Your task to perform on an android device: turn pop-ups off in chrome Image 0: 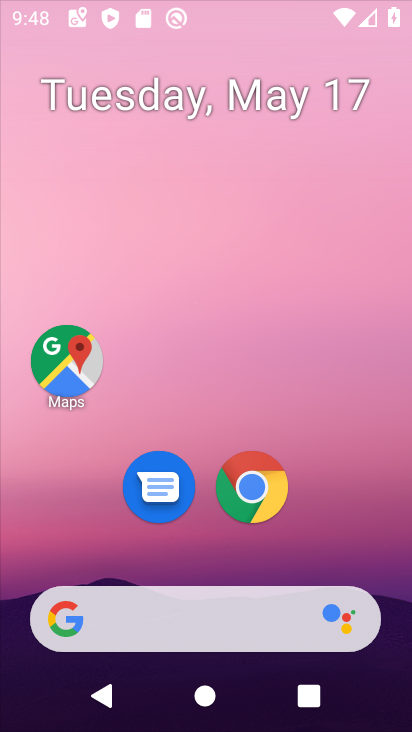
Step 0: press home button
Your task to perform on an android device: turn pop-ups off in chrome Image 1: 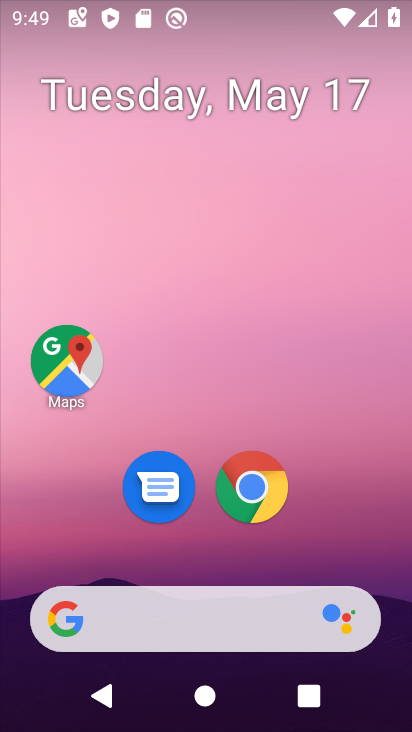
Step 1: drag from (245, 648) to (339, 275)
Your task to perform on an android device: turn pop-ups off in chrome Image 2: 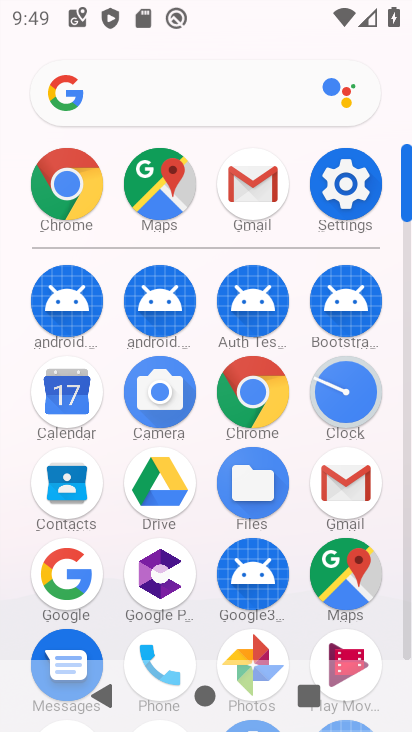
Step 2: click (69, 191)
Your task to perform on an android device: turn pop-ups off in chrome Image 3: 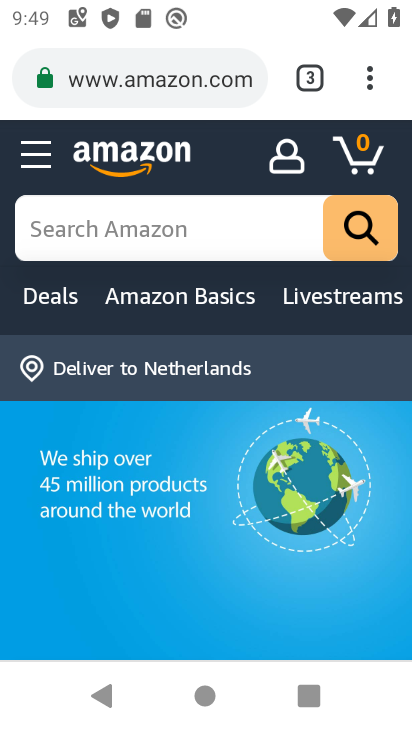
Step 3: click (359, 91)
Your task to perform on an android device: turn pop-ups off in chrome Image 4: 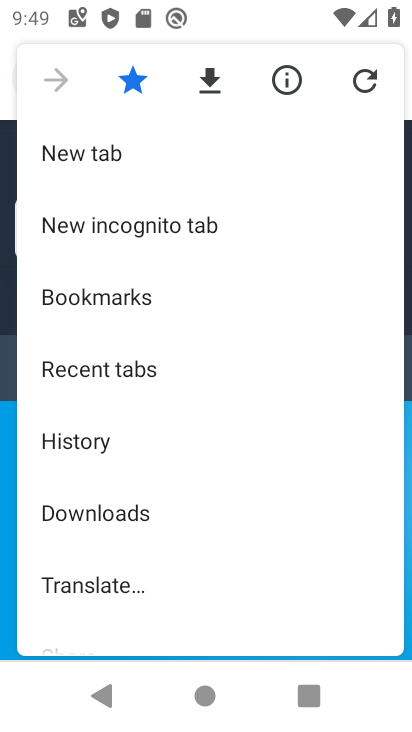
Step 4: drag from (173, 536) to (240, 274)
Your task to perform on an android device: turn pop-ups off in chrome Image 5: 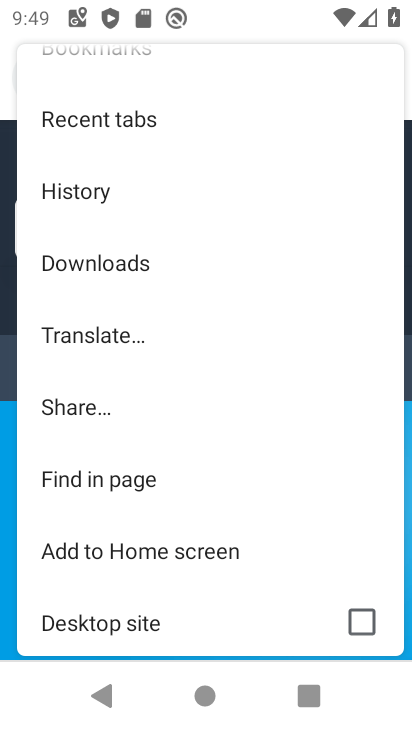
Step 5: drag from (127, 591) to (208, 354)
Your task to perform on an android device: turn pop-ups off in chrome Image 6: 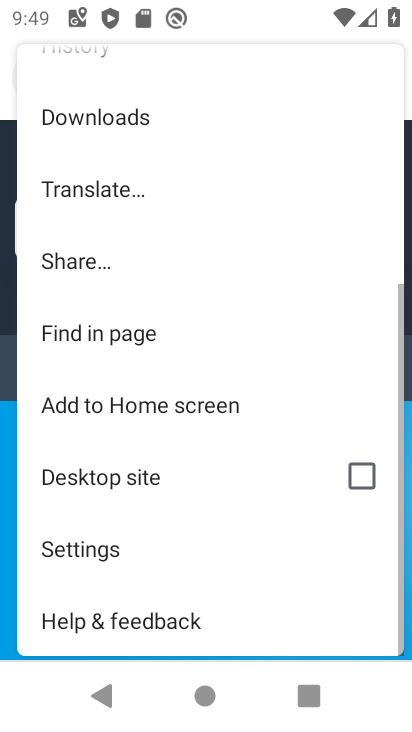
Step 6: click (145, 547)
Your task to perform on an android device: turn pop-ups off in chrome Image 7: 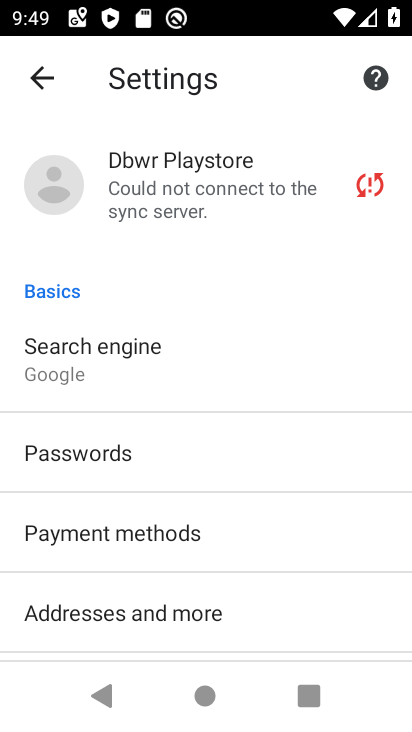
Step 7: drag from (147, 549) to (128, 329)
Your task to perform on an android device: turn pop-ups off in chrome Image 8: 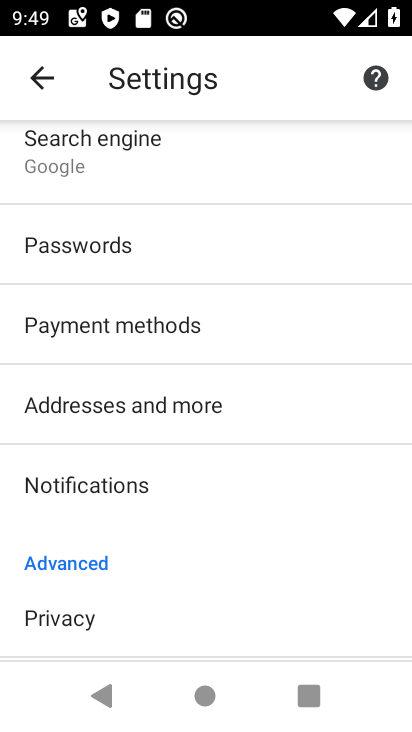
Step 8: drag from (158, 525) to (182, 334)
Your task to perform on an android device: turn pop-ups off in chrome Image 9: 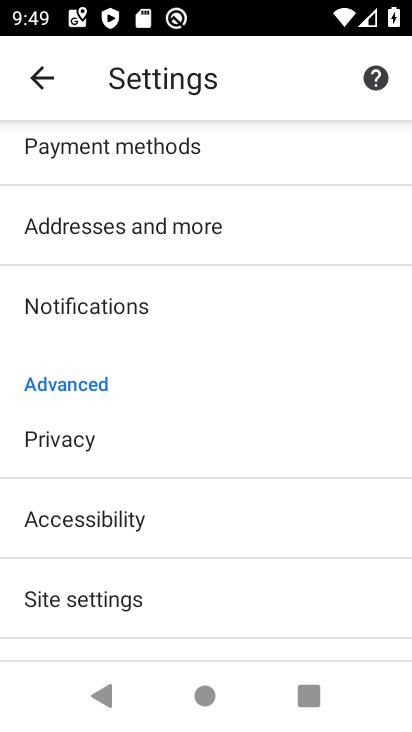
Step 9: drag from (125, 555) to (189, 352)
Your task to perform on an android device: turn pop-ups off in chrome Image 10: 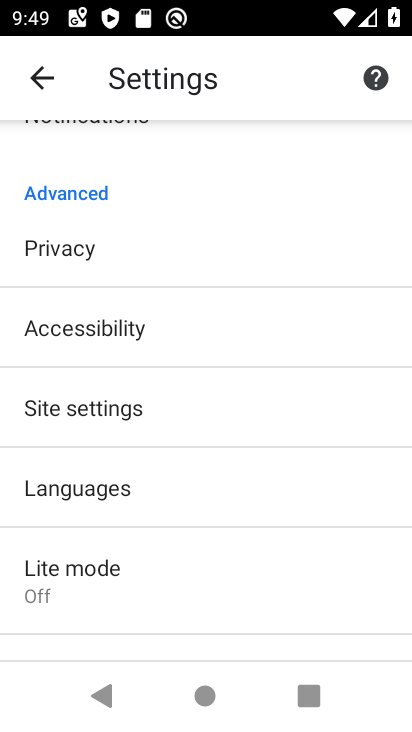
Step 10: drag from (141, 528) to (149, 447)
Your task to perform on an android device: turn pop-ups off in chrome Image 11: 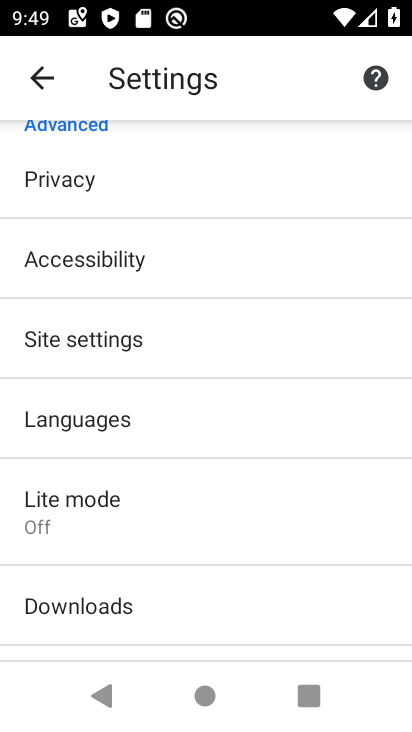
Step 11: click (108, 349)
Your task to perform on an android device: turn pop-ups off in chrome Image 12: 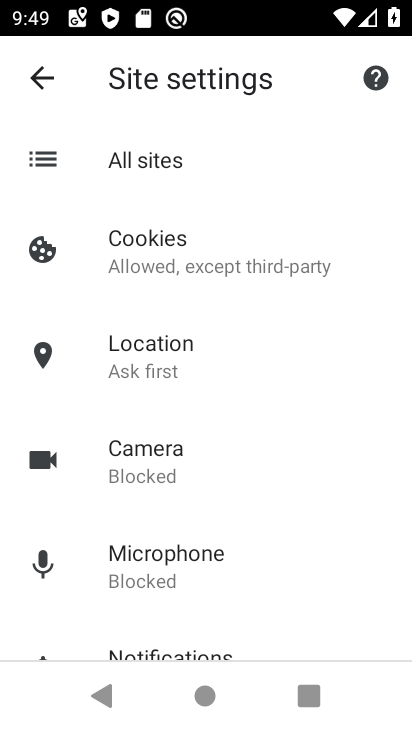
Step 12: drag from (264, 505) to (301, 159)
Your task to perform on an android device: turn pop-ups off in chrome Image 13: 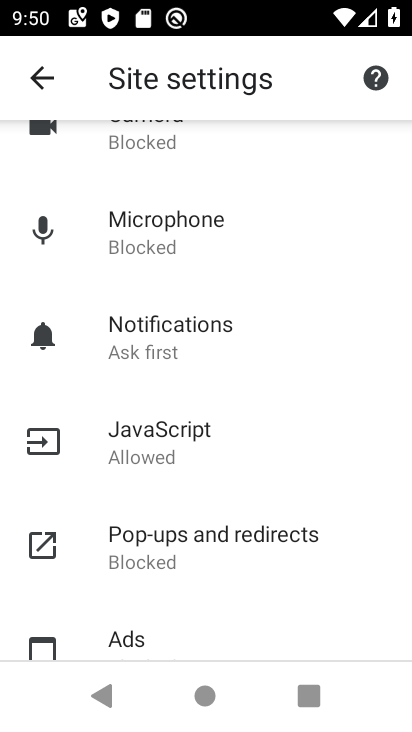
Step 13: click (139, 550)
Your task to perform on an android device: turn pop-ups off in chrome Image 14: 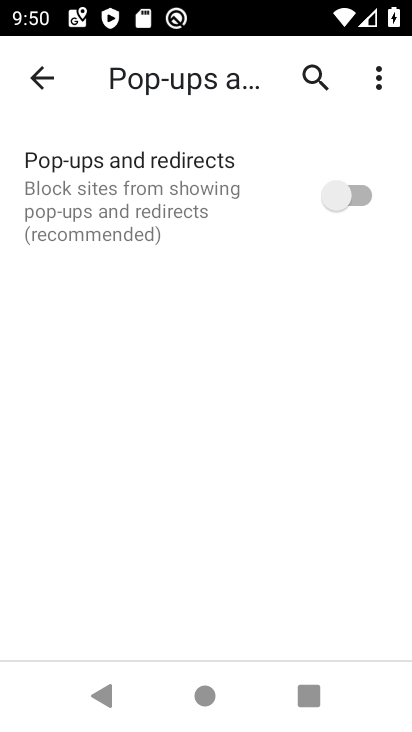
Step 14: click (356, 192)
Your task to perform on an android device: turn pop-ups off in chrome Image 15: 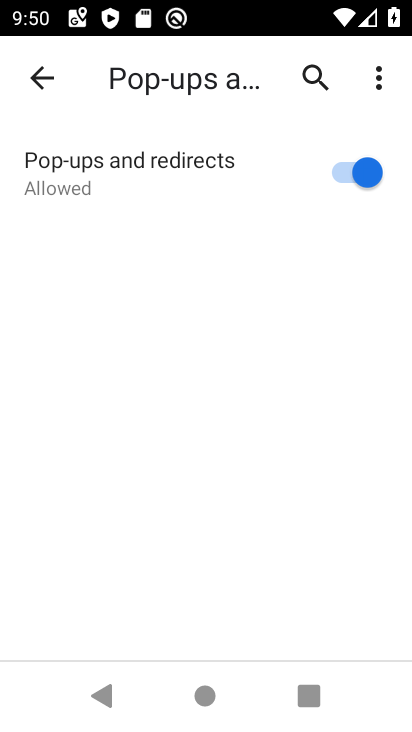
Step 15: click (360, 192)
Your task to perform on an android device: turn pop-ups off in chrome Image 16: 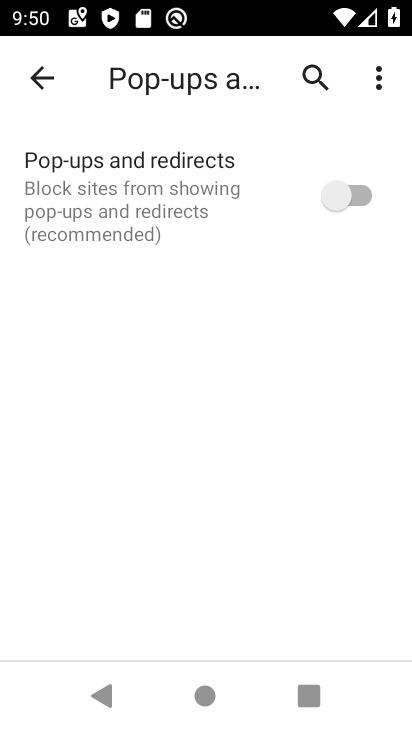
Step 16: task complete